Your task to perform on an android device: Go to Amazon Image 0: 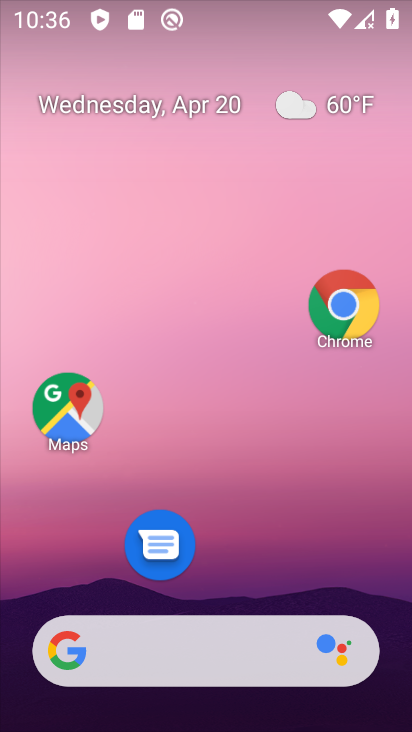
Step 0: drag from (224, 516) to (219, 240)
Your task to perform on an android device: Go to Amazon Image 1: 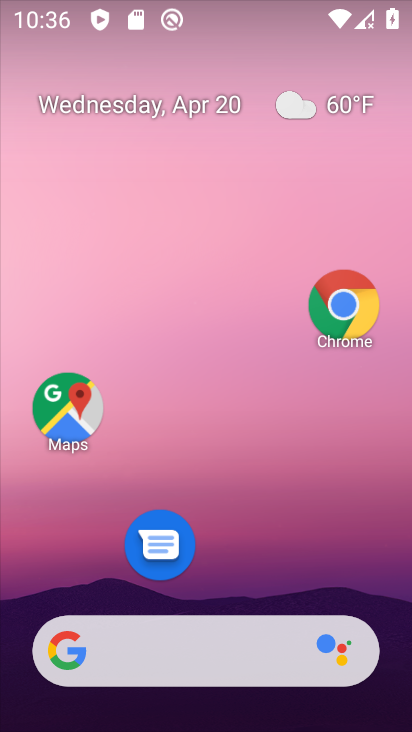
Step 1: drag from (222, 564) to (231, 122)
Your task to perform on an android device: Go to Amazon Image 2: 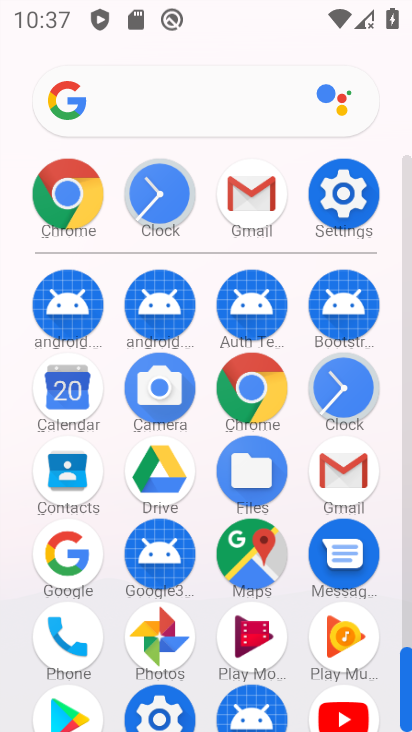
Step 2: click (82, 215)
Your task to perform on an android device: Go to Amazon Image 3: 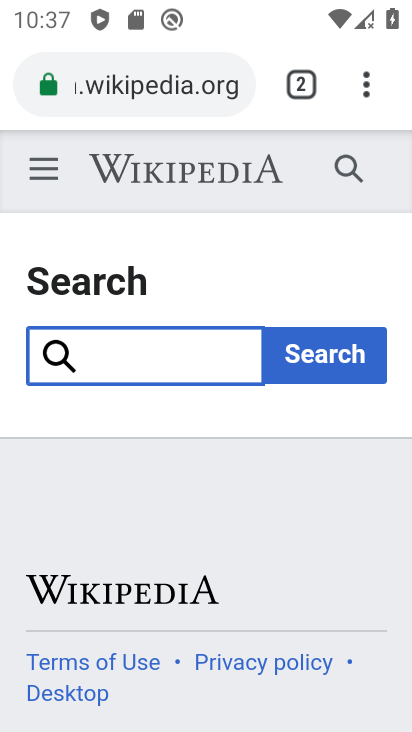
Step 3: drag from (296, 84) to (298, 246)
Your task to perform on an android device: Go to Amazon Image 4: 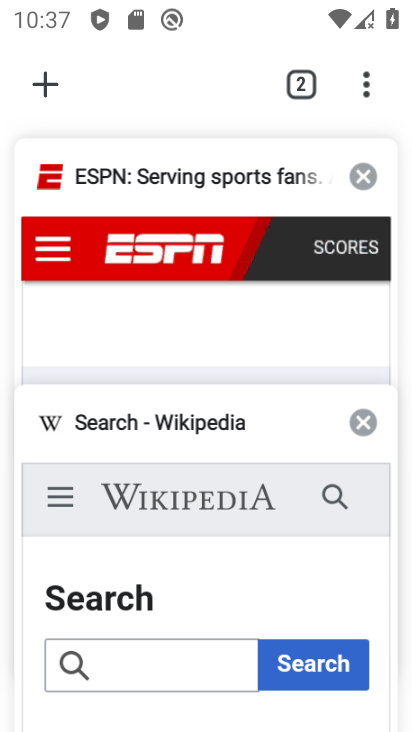
Step 4: click (54, 92)
Your task to perform on an android device: Go to Amazon Image 5: 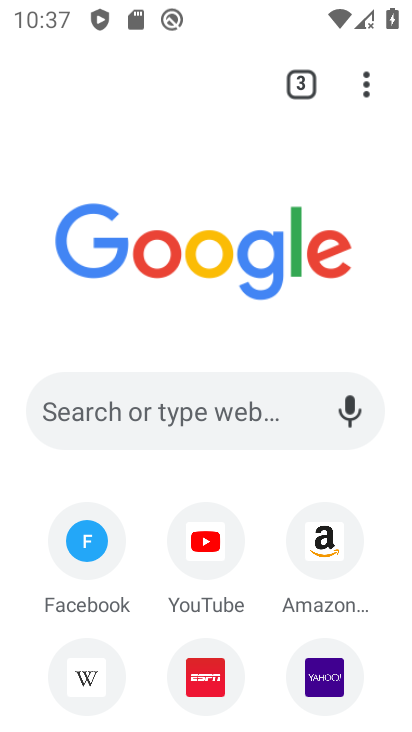
Step 5: click (343, 570)
Your task to perform on an android device: Go to Amazon Image 6: 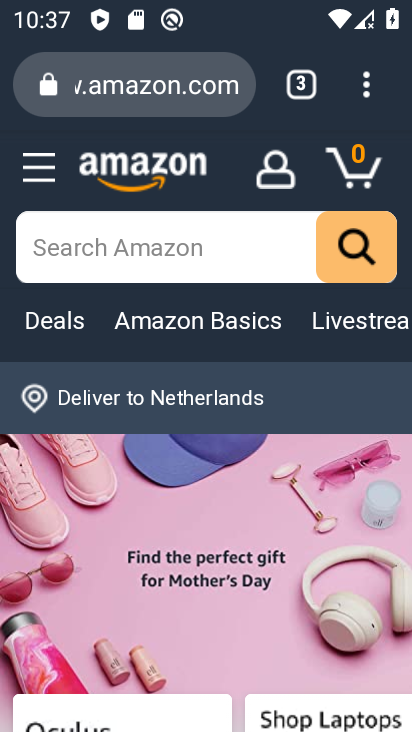
Step 6: task complete